Your task to perform on an android device: Go to Maps Image 0: 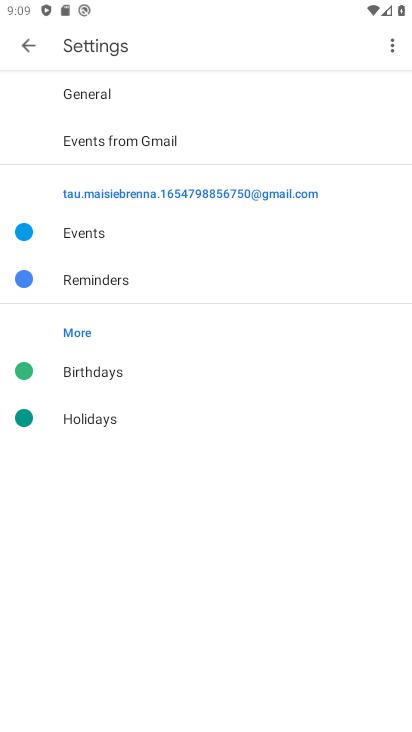
Step 0: press home button
Your task to perform on an android device: Go to Maps Image 1: 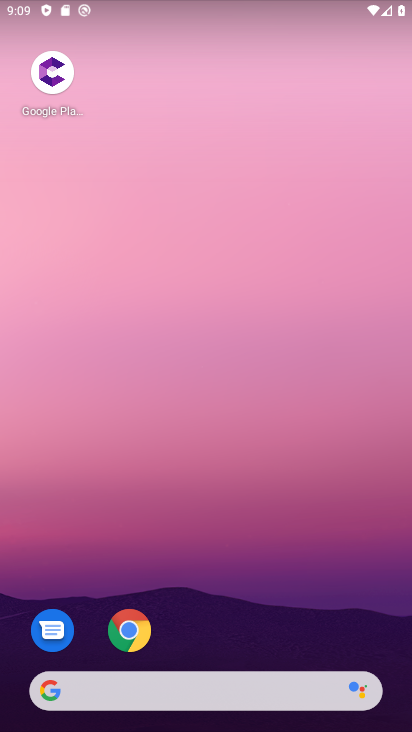
Step 1: drag from (164, 679) to (168, 257)
Your task to perform on an android device: Go to Maps Image 2: 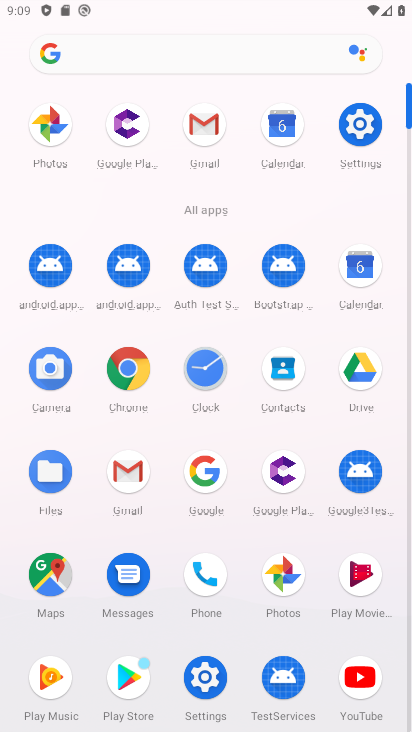
Step 2: click (49, 582)
Your task to perform on an android device: Go to Maps Image 3: 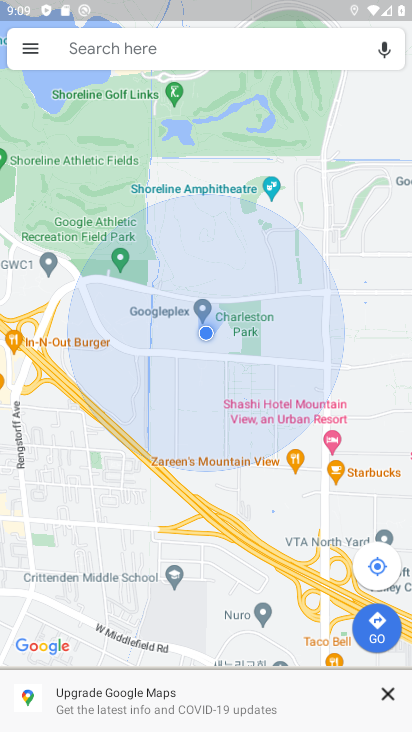
Step 3: task complete